Your task to perform on an android device: When is my next appointment? Image 0: 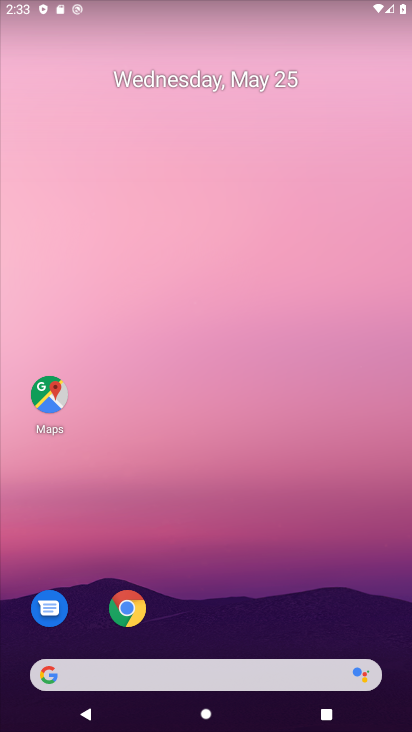
Step 0: drag from (299, 620) to (261, 0)
Your task to perform on an android device: When is my next appointment? Image 1: 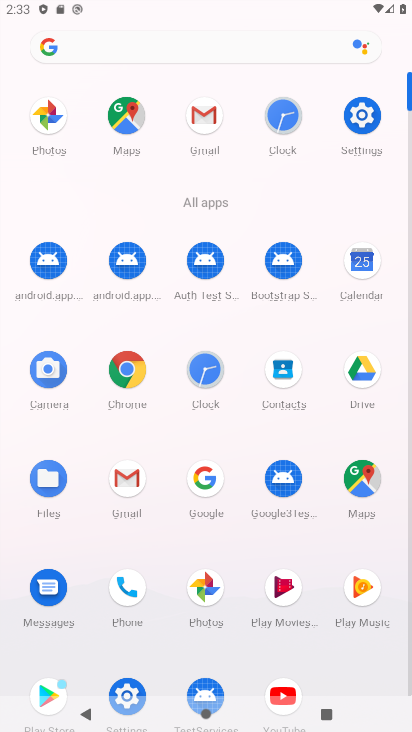
Step 1: click (362, 271)
Your task to perform on an android device: When is my next appointment? Image 2: 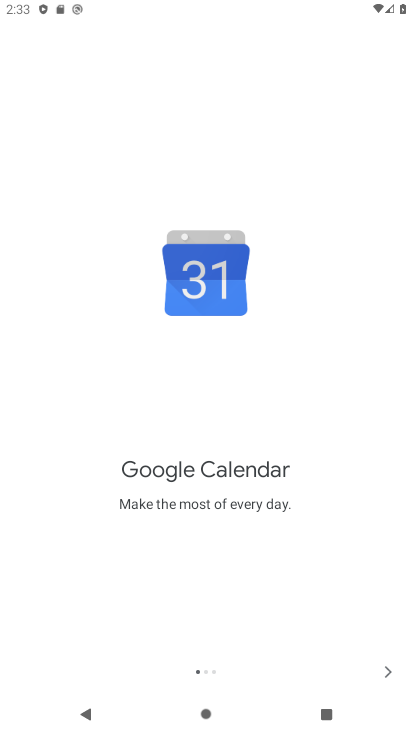
Step 2: click (393, 668)
Your task to perform on an android device: When is my next appointment? Image 3: 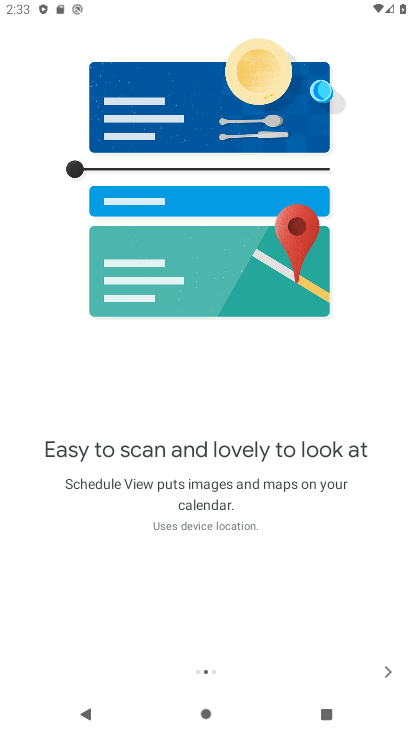
Step 3: click (393, 668)
Your task to perform on an android device: When is my next appointment? Image 4: 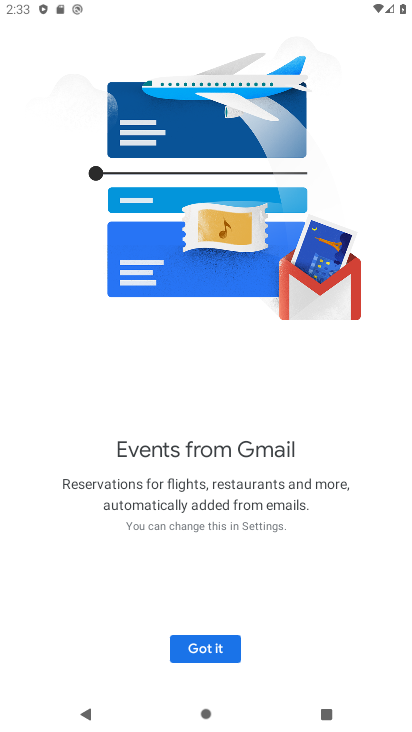
Step 4: click (208, 653)
Your task to perform on an android device: When is my next appointment? Image 5: 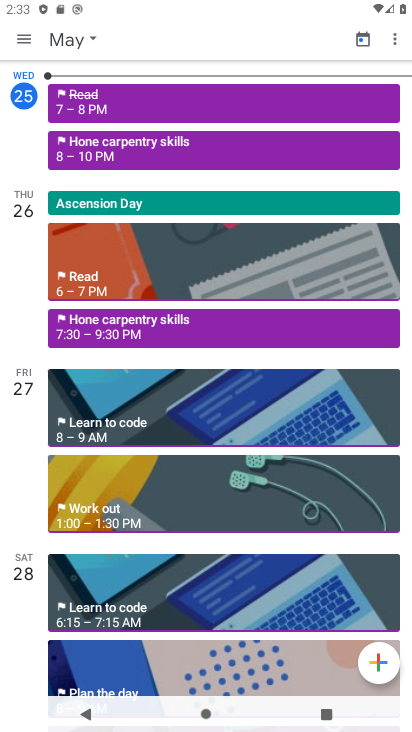
Step 5: click (130, 106)
Your task to perform on an android device: When is my next appointment? Image 6: 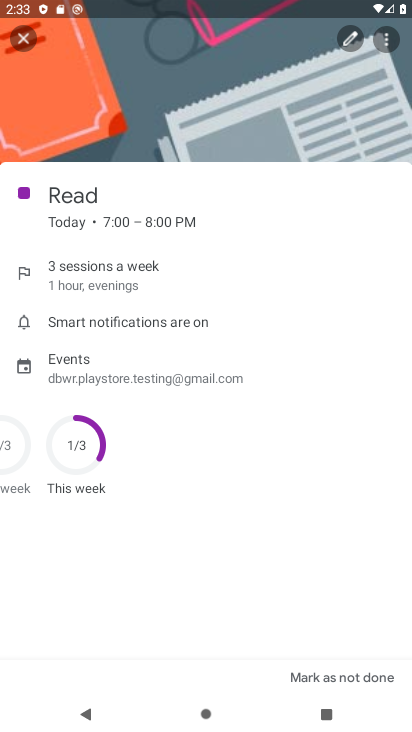
Step 6: task complete